Your task to perform on an android device: Toggle the flashlight Image 0: 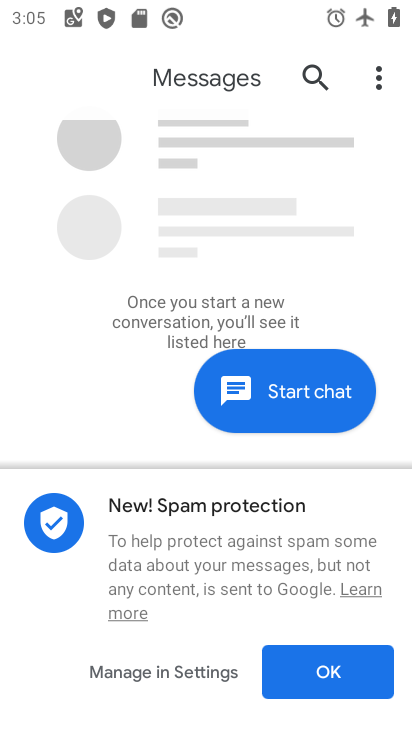
Step 0: task impossible